Your task to perform on an android device: turn off improve location accuracy Image 0: 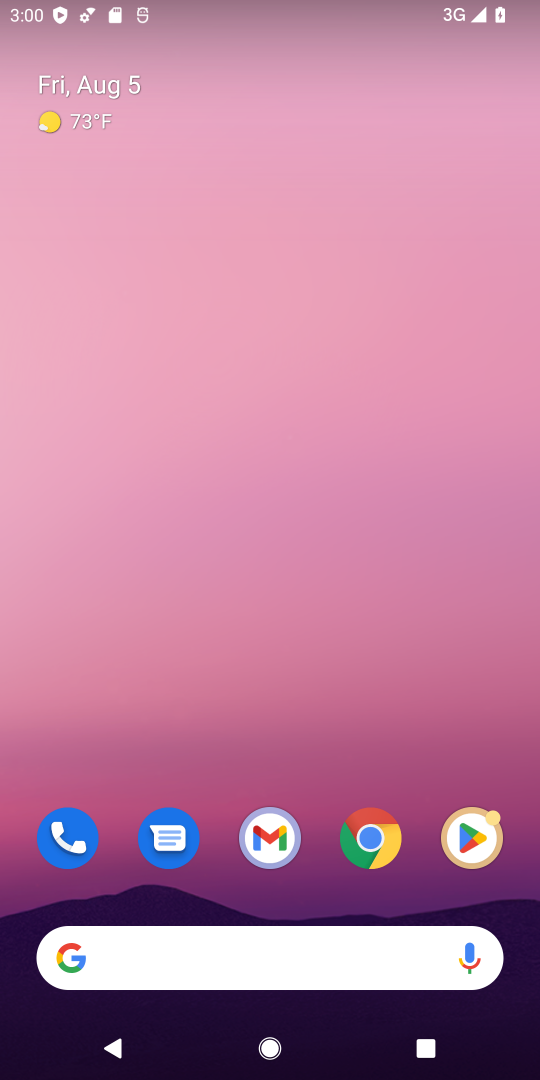
Step 0: drag from (318, 944) to (321, 381)
Your task to perform on an android device: turn off improve location accuracy Image 1: 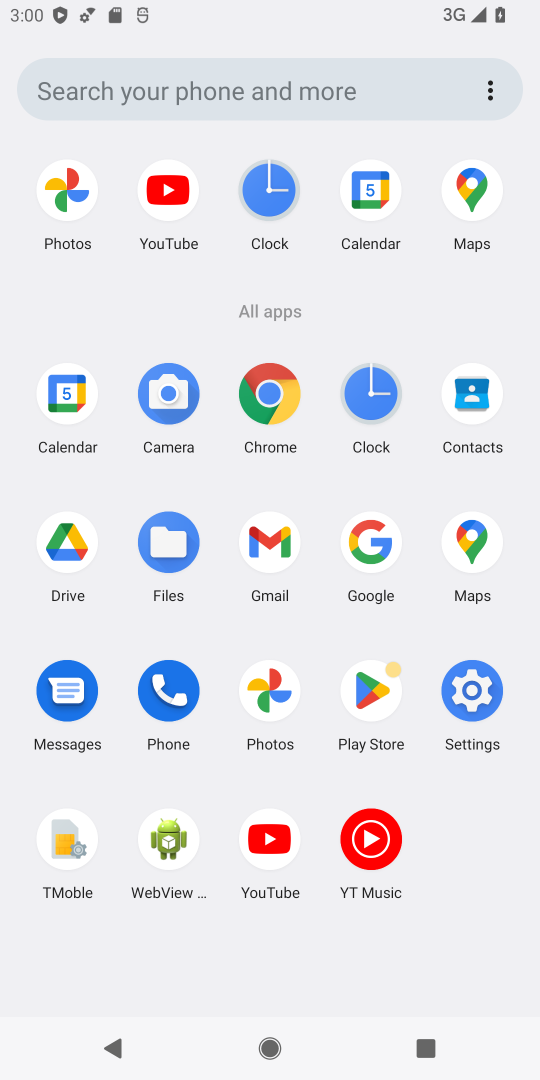
Step 1: click (477, 675)
Your task to perform on an android device: turn off improve location accuracy Image 2: 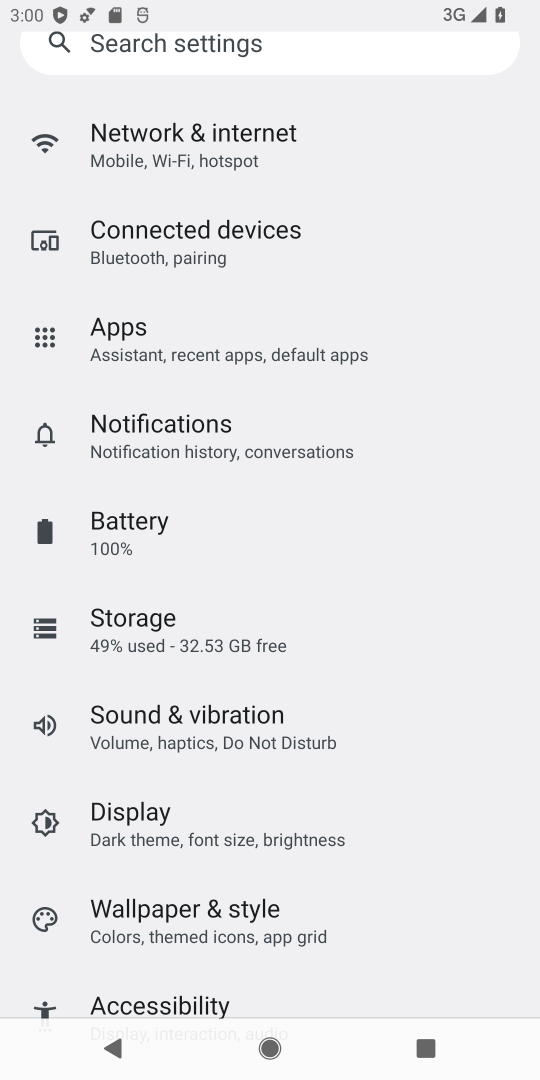
Step 2: drag from (153, 880) to (218, 291)
Your task to perform on an android device: turn off improve location accuracy Image 3: 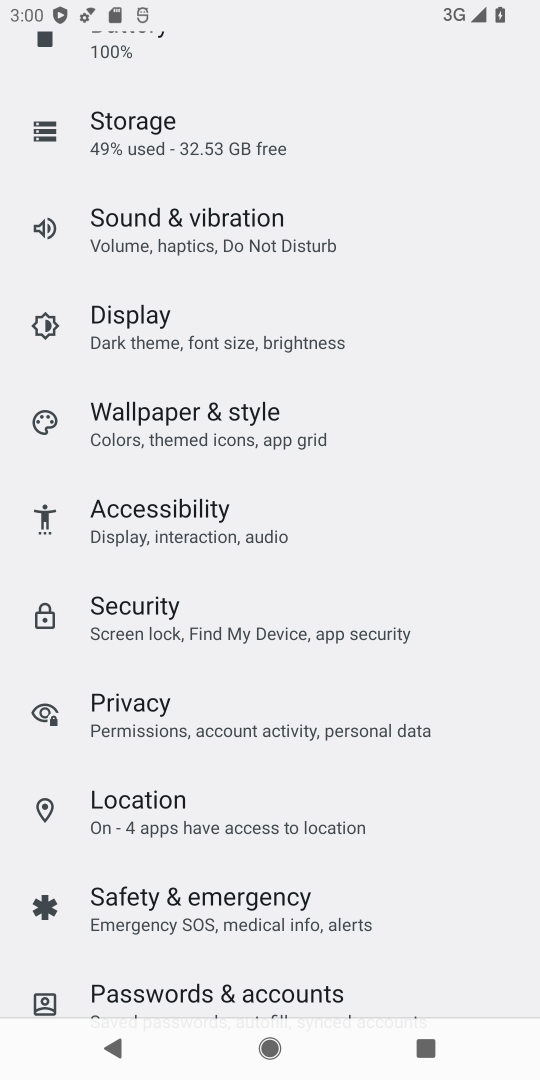
Step 3: click (223, 822)
Your task to perform on an android device: turn off improve location accuracy Image 4: 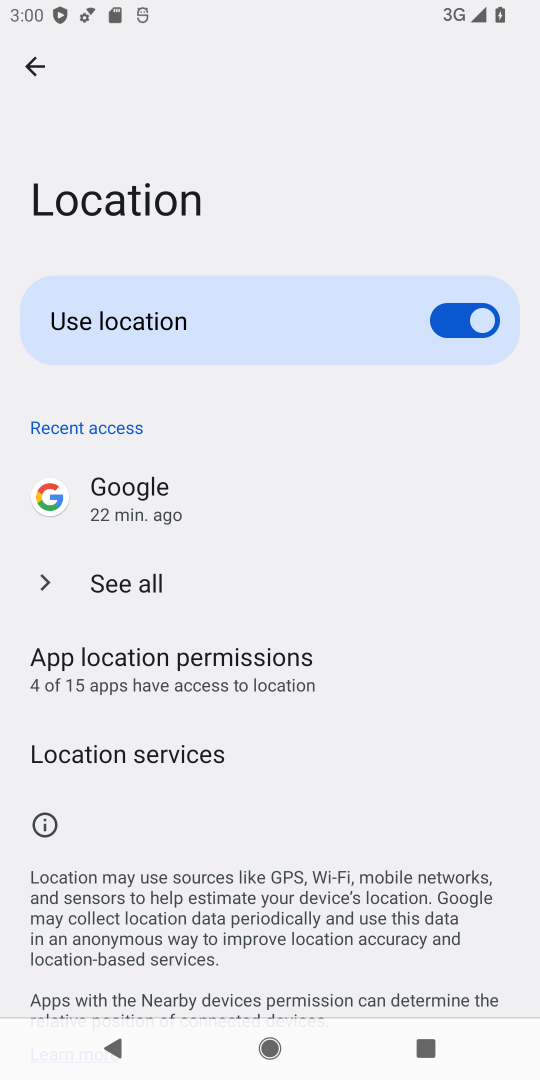
Step 4: click (100, 758)
Your task to perform on an android device: turn off improve location accuracy Image 5: 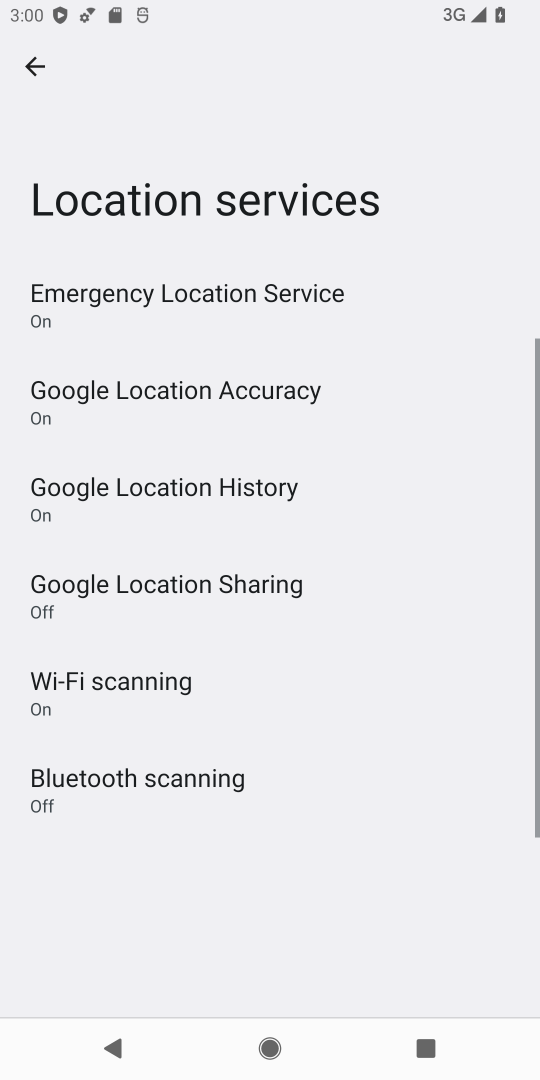
Step 5: click (239, 406)
Your task to perform on an android device: turn off improve location accuracy Image 6: 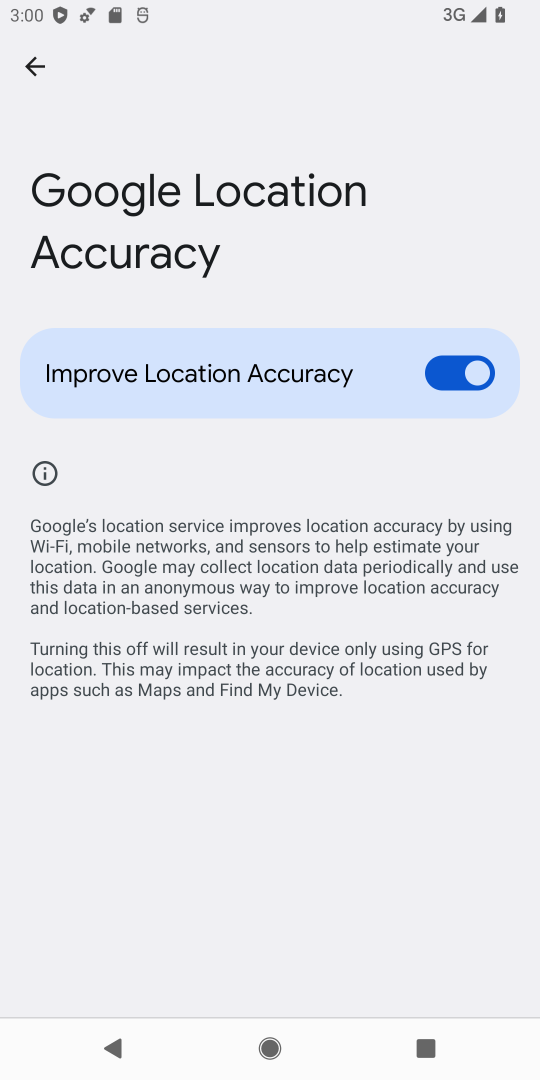
Step 6: click (439, 353)
Your task to perform on an android device: turn off improve location accuracy Image 7: 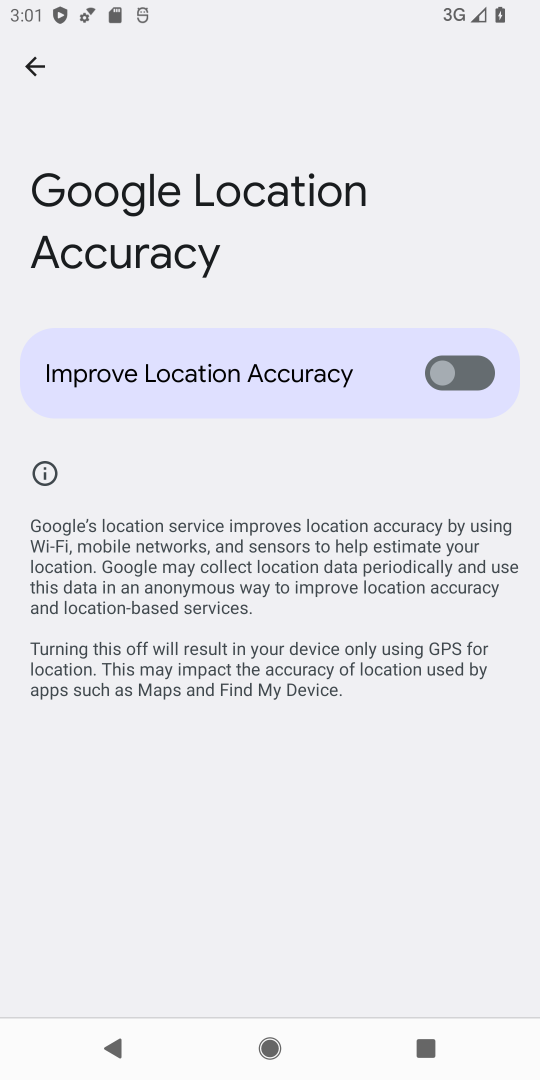
Step 7: task complete